Your task to perform on an android device: turn off translation in the chrome app Image 0: 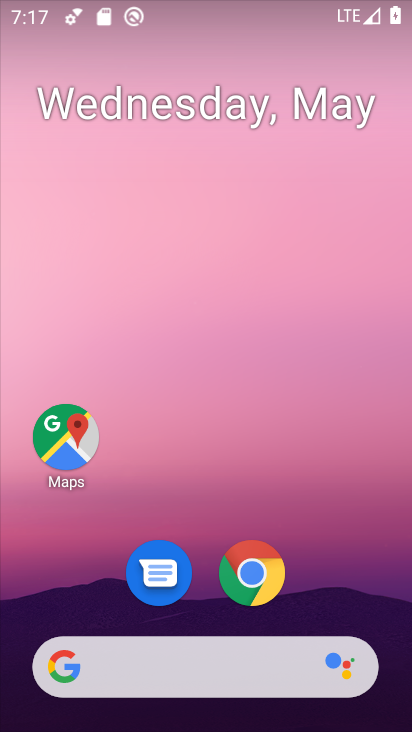
Step 0: click (255, 575)
Your task to perform on an android device: turn off translation in the chrome app Image 1: 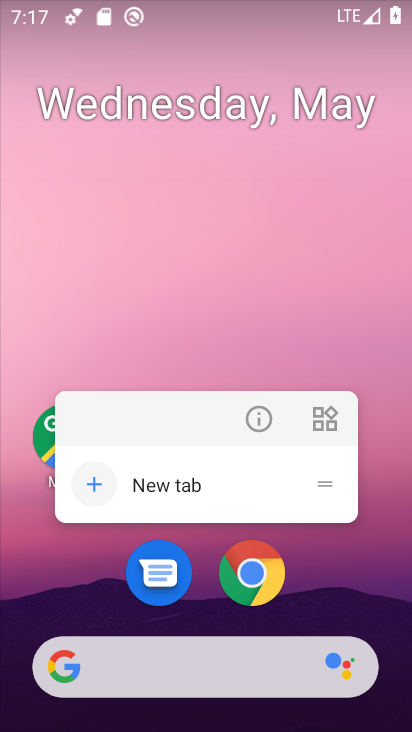
Step 1: click (255, 575)
Your task to perform on an android device: turn off translation in the chrome app Image 2: 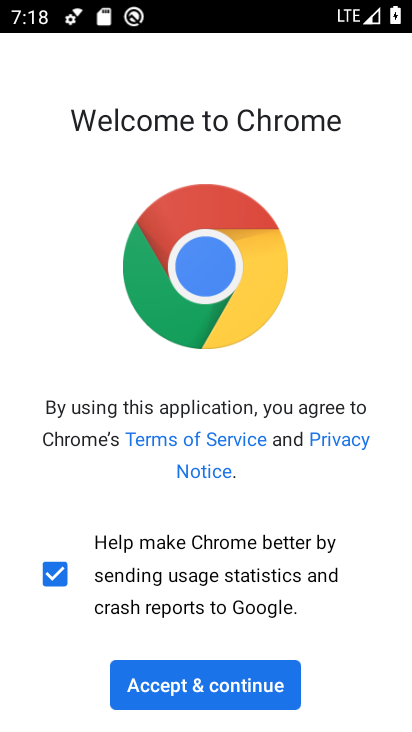
Step 2: click (239, 691)
Your task to perform on an android device: turn off translation in the chrome app Image 3: 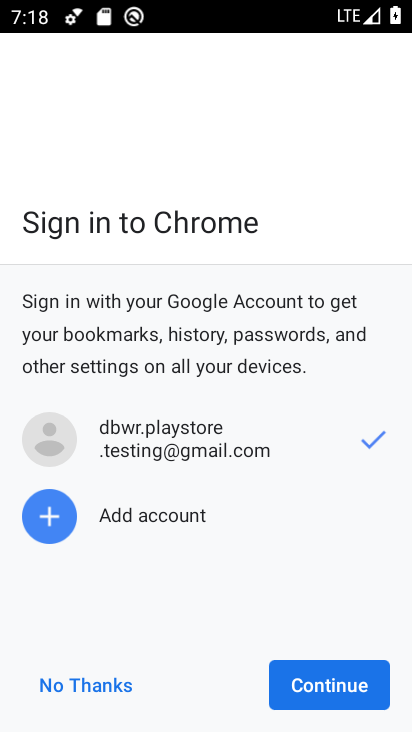
Step 3: click (312, 690)
Your task to perform on an android device: turn off translation in the chrome app Image 4: 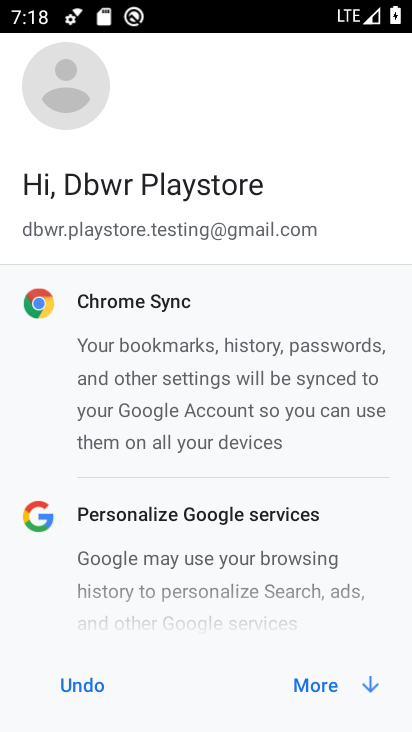
Step 4: click (312, 690)
Your task to perform on an android device: turn off translation in the chrome app Image 5: 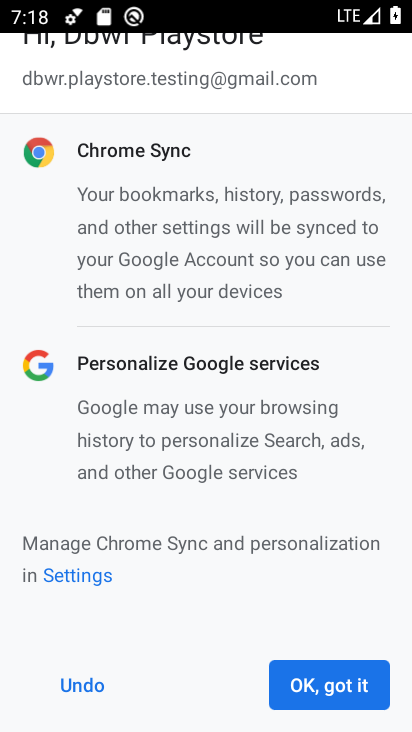
Step 5: click (312, 690)
Your task to perform on an android device: turn off translation in the chrome app Image 6: 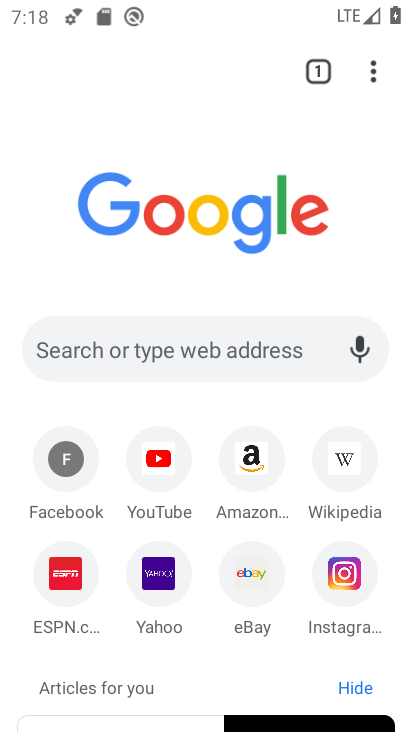
Step 6: click (368, 66)
Your task to perform on an android device: turn off translation in the chrome app Image 7: 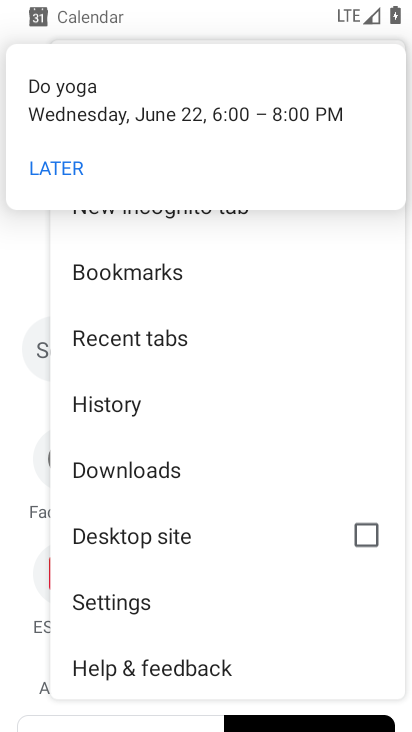
Step 7: drag from (284, 657) to (254, 352)
Your task to perform on an android device: turn off translation in the chrome app Image 8: 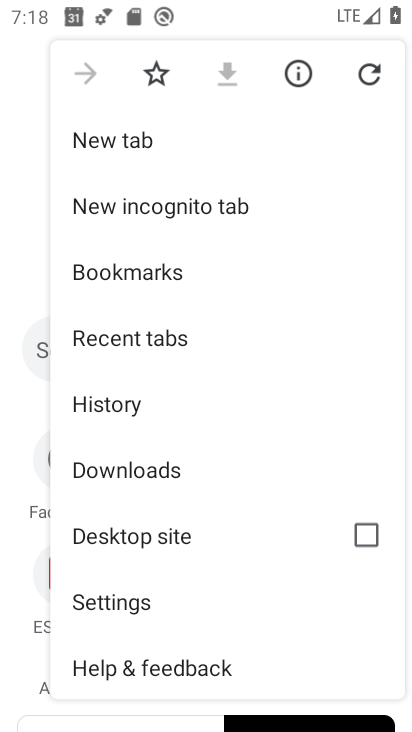
Step 8: drag from (270, 638) to (283, 204)
Your task to perform on an android device: turn off translation in the chrome app Image 9: 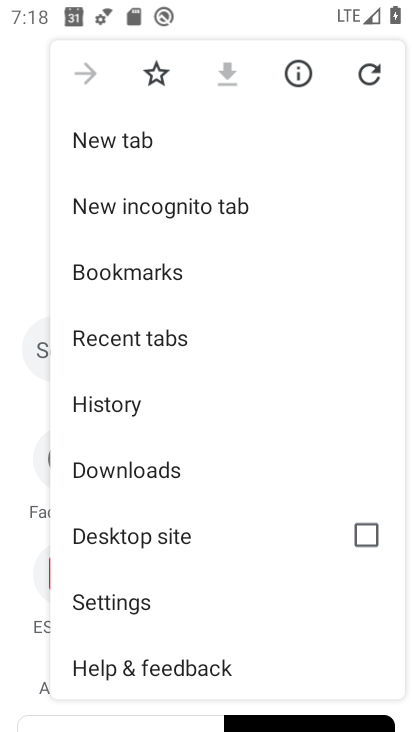
Step 9: drag from (283, 634) to (284, 152)
Your task to perform on an android device: turn off translation in the chrome app Image 10: 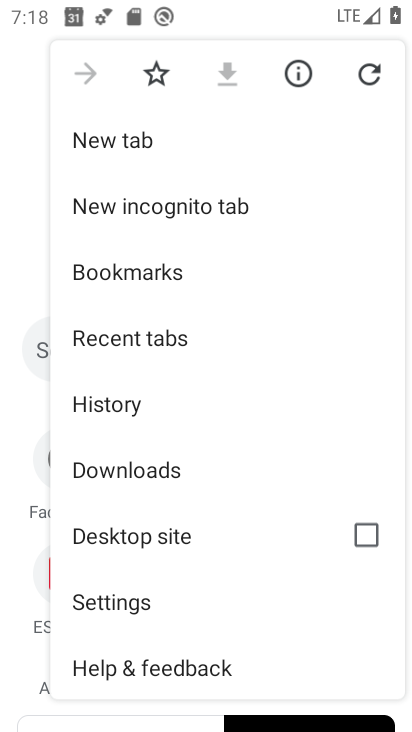
Step 10: click (125, 605)
Your task to perform on an android device: turn off translation in the chrome app Image 11: 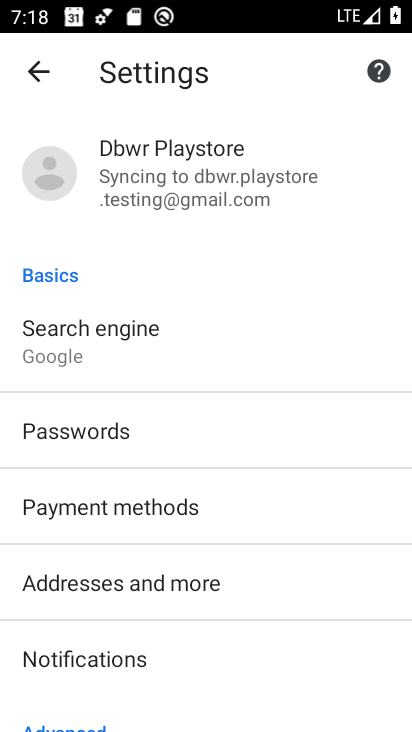
Step 11: drag from (254, 681) to (258, 341)
Your task to perform on an android device: turn off translation in the chrome app Image 12: 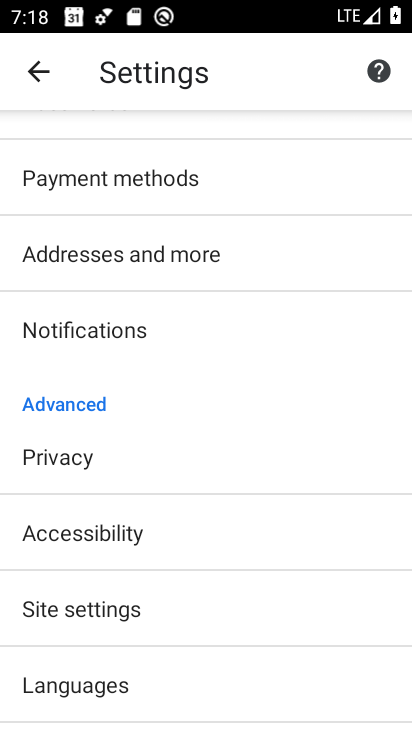
Step 12: click (93, 680)
Your task to perform on an android device: turn off translation in the chrome app Image 13: 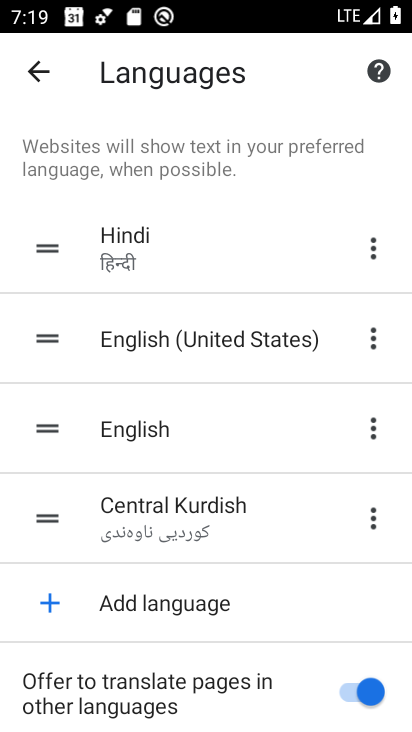
Step 13: click (341, 696)
Your task to perform on an android device: turn off translation in the chrome app Image 14: 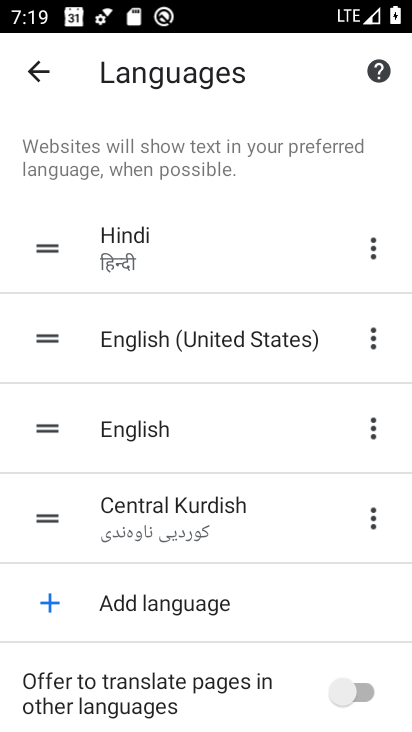
Step 14: task complete